Your task to perform on an android device: What's the weather going to be tomorrow? Image 0: 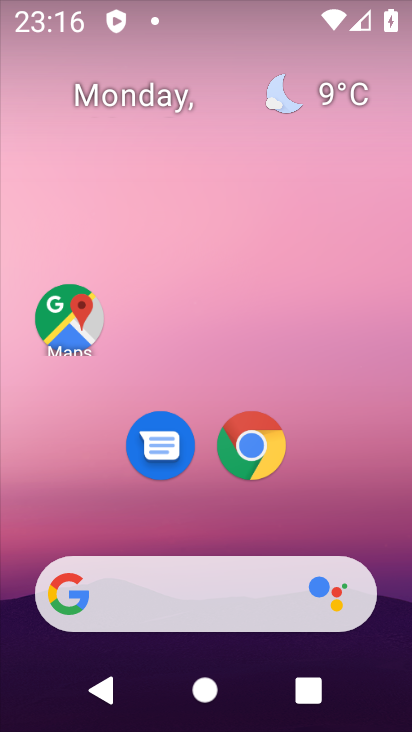
Step 0: drag from (300, 665) to (345, 72)
Your task to perform on an android device: What's the weather going to be tomorrow? Image 1: 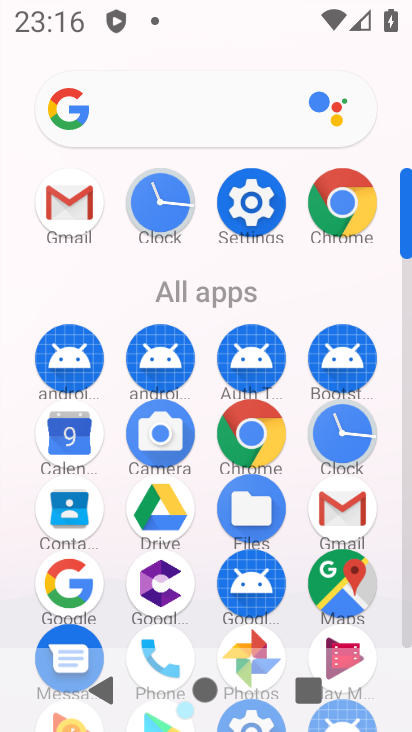
Step 1: click (227, 426)
Your task to perform on an android device: What's the weather going to be tomorrow? Image 2: 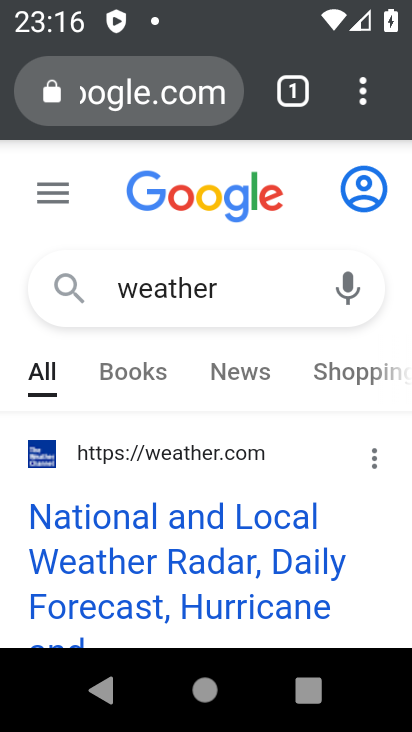
Step 2: click (205, 80)
Your task to perform on an android device: What's the weather going to be tomorrow? Image 3: 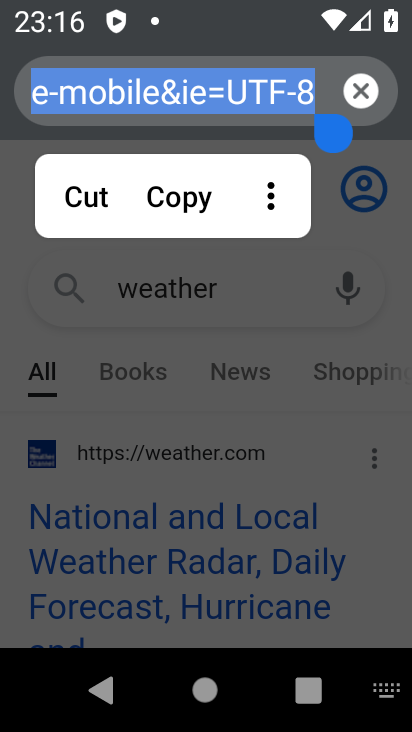
Step 3: click (367, 100)
Your task to perform on an android device: What's the weather going to be tomorrow? Image 4: 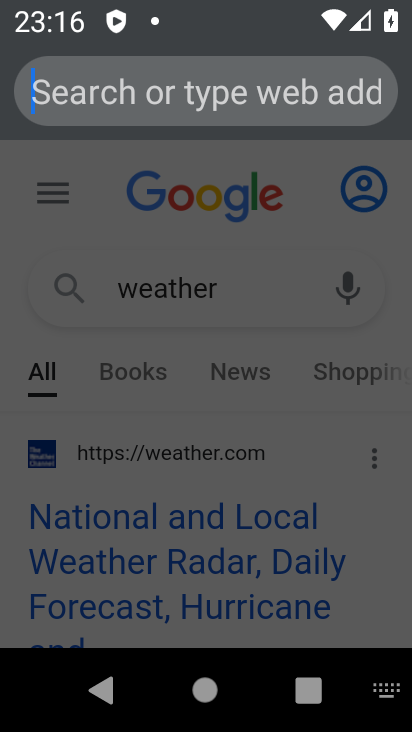
Step 4: type "weather going to be tomorrow"
Your task to perform on an android device: What's the weather going to be tomorrow? Image 5: 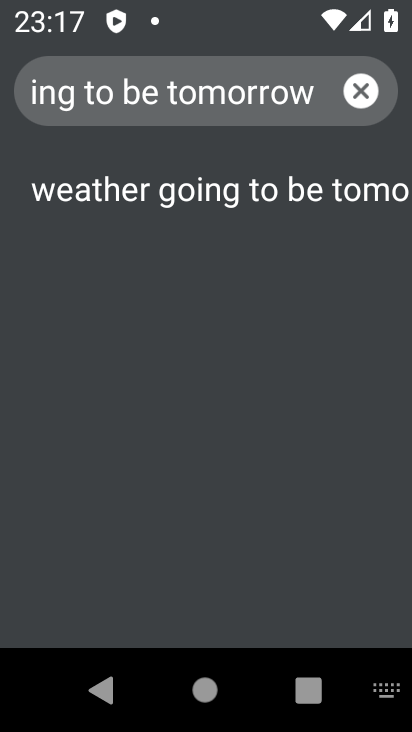
Step 5: click (220, 198)
Your task to perform on an android device: What's the weather going to be tomorrow? Image 6: 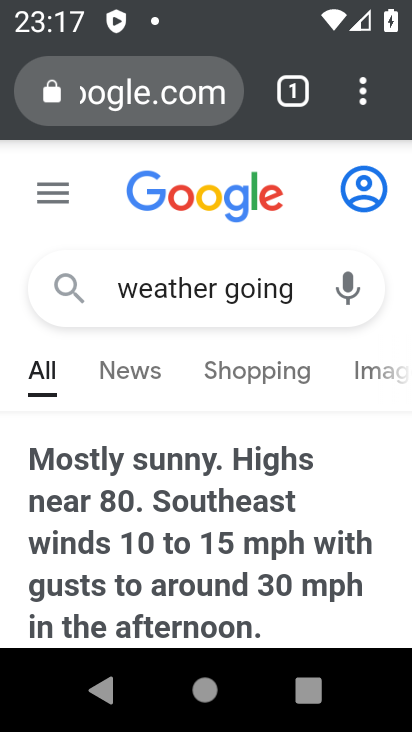
Step 6: task complete